Your task to perform on an android device: Open Google Maps Image 0: 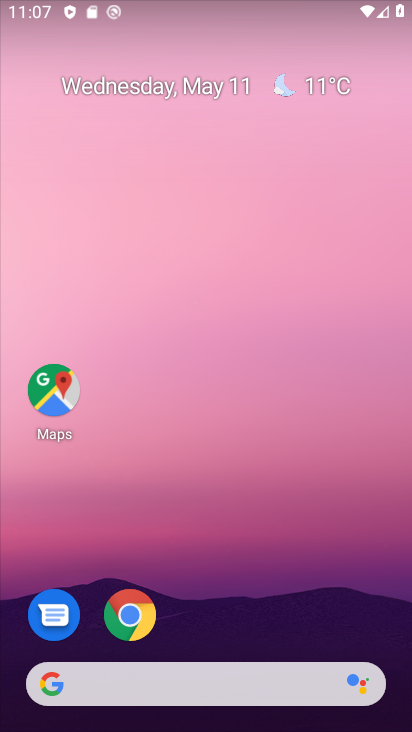
Step 0: click (55, 379)
Your task to perform on an android device: Open Google Maps Image 1: 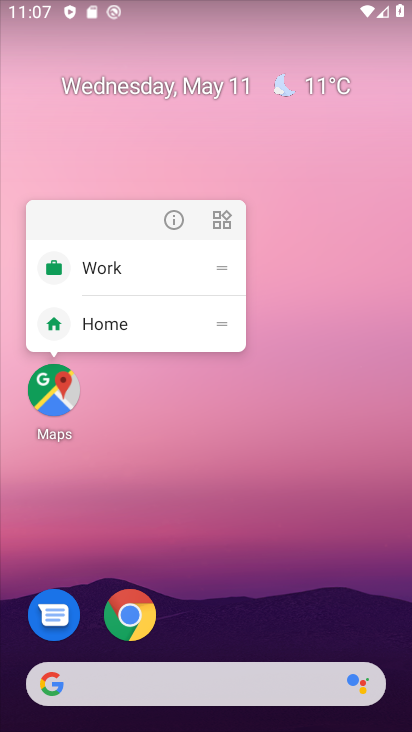
Step 1: click (51, 403)
Your task to perform on an android device: Open Google Maps Image 2: 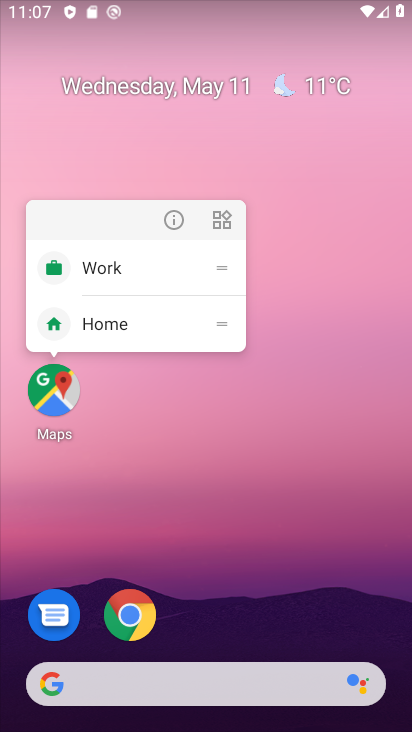
Step 2: click (50, 399)
Your task to perform on an android device: Open Google Maps Image 3: 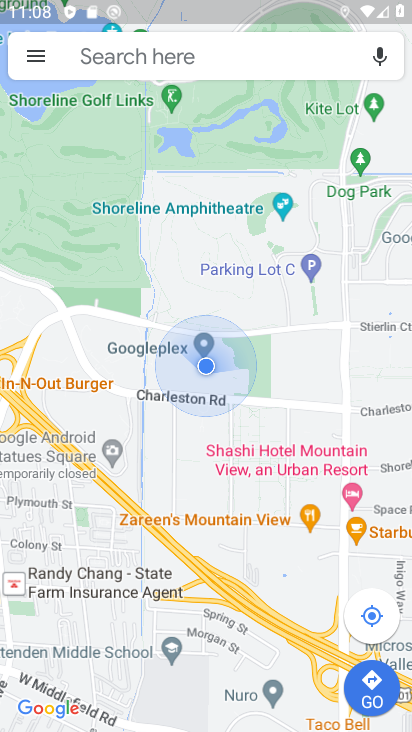
Step 3: task complete